Your task to perform on an android device: Search for Mexican restaurants on Maps Image 0: 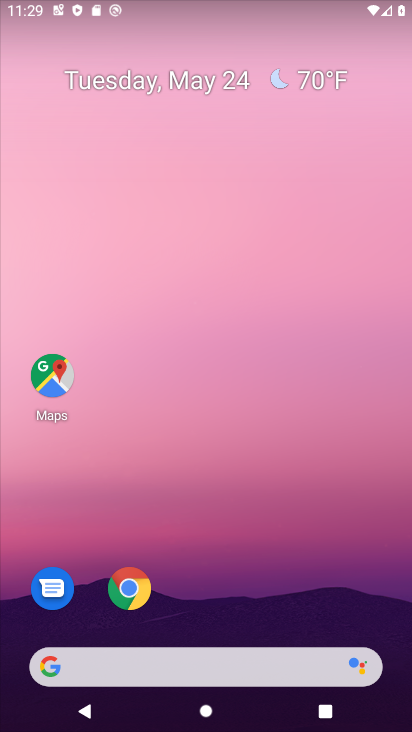
Step 0: click (46, 371)
Your task to perform on an android device: Search for Mexican restaurants on Maps Image 1: 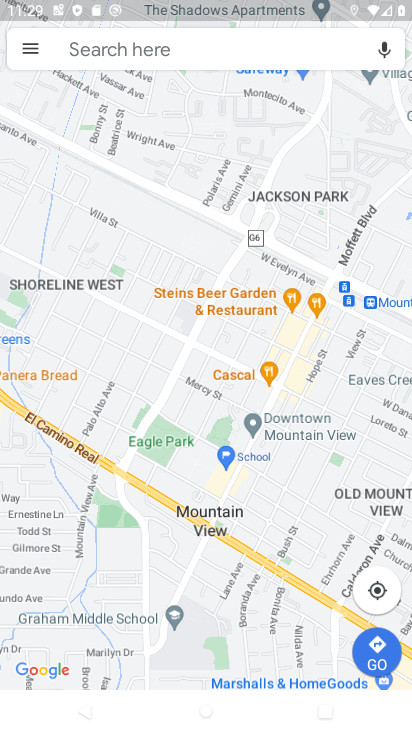
Step 1: click (88, 48)
Your task to perform on an android device: Search for Mexican restaurants on Maps Image 2: 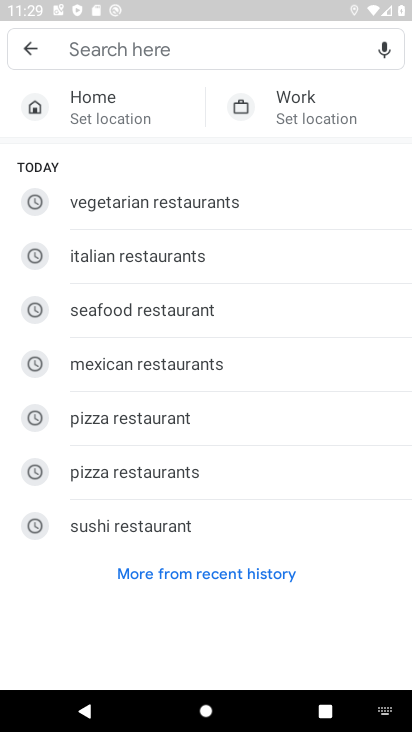
Step 2: click (235, 362)
Your task to perform on an android device: Search for Mexican restaurants on Maps Image 3: 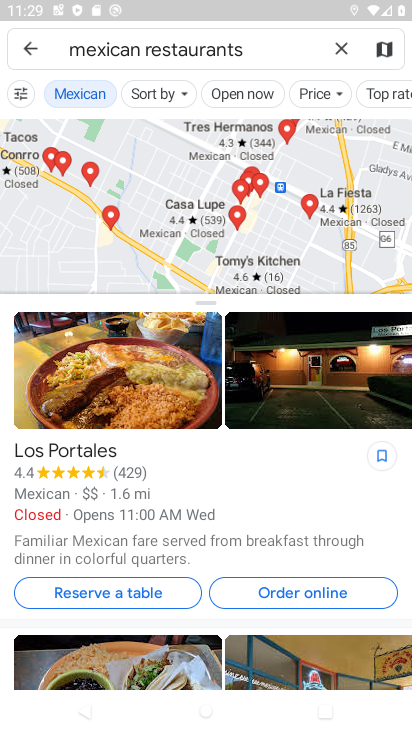
Step 3: task complete